Your task to perform on an android device: Open Amazon Image 0: 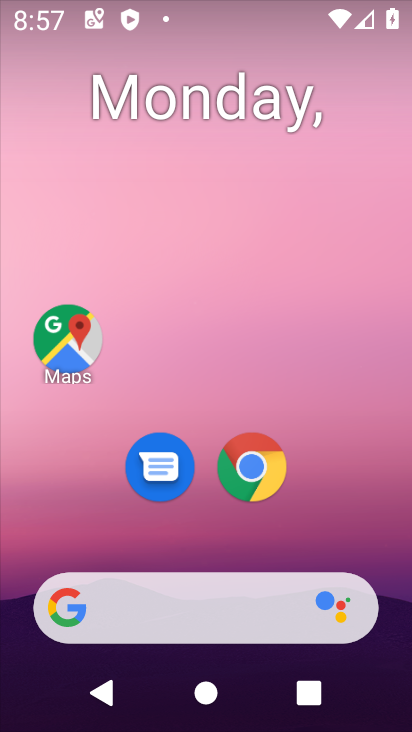
Step 0: drag from (194, 480) to (245, 71)
Your task to perform on an android device: Open Amazon Image 1: 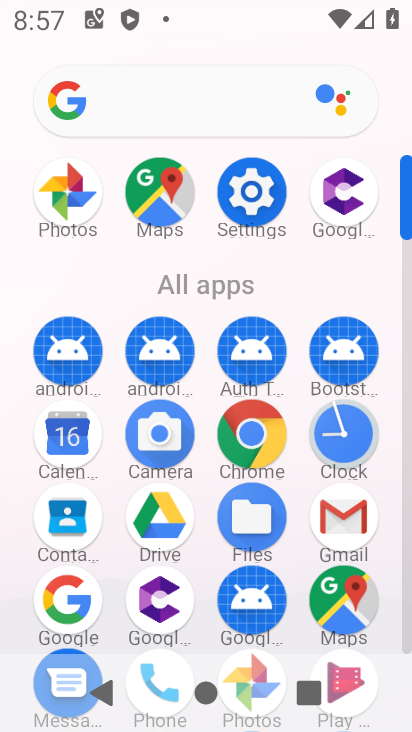
Step 1: click (251, 444)
Your task to perform on an android device: Open Amazon Image 2: 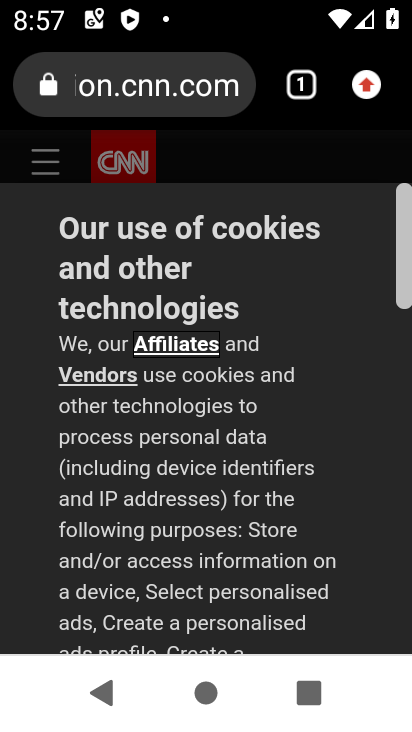
Step 2: drag from (214, 45) to (201, 142)
Your task to perform on an android device: Open Amazon Image 3: 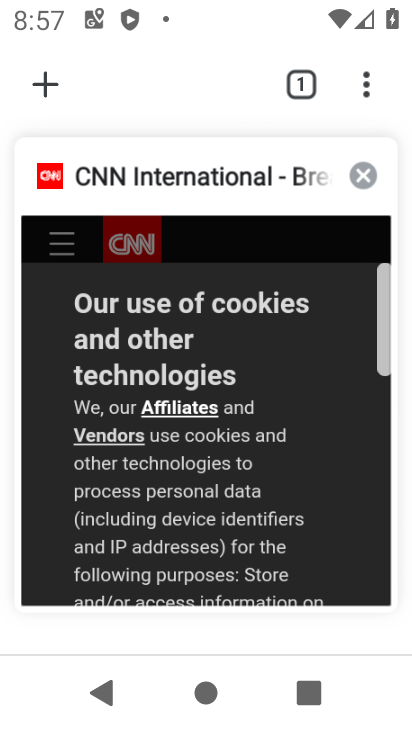
Step 3: click (50, 80)
Your task to perform on an android device: Open Amazon Image 4: 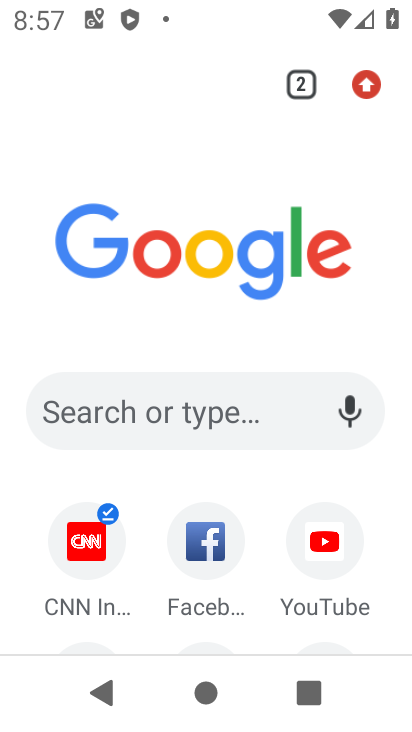
Step 4: drag from (252, 622) to (261, 278)
Your task to perform on an android device: Open Amazon Image 5: 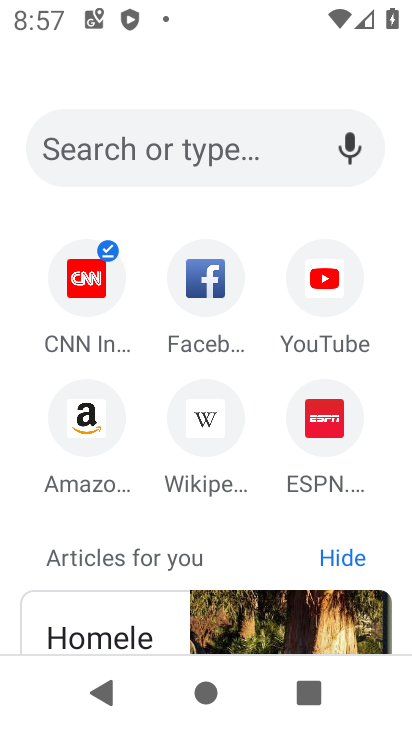
Step 5: click (106, 406)
Your task to perform on an android device: Open Amazon Image 6: 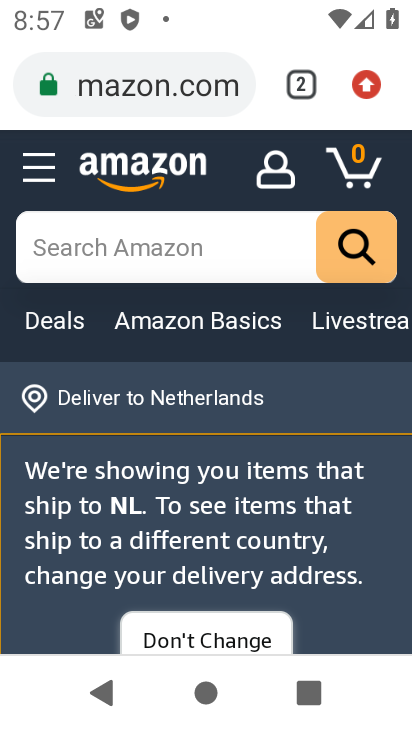
Step 6: task complete